Your task to perform on an android device: stop showing notifications on the lock screen Image 0: 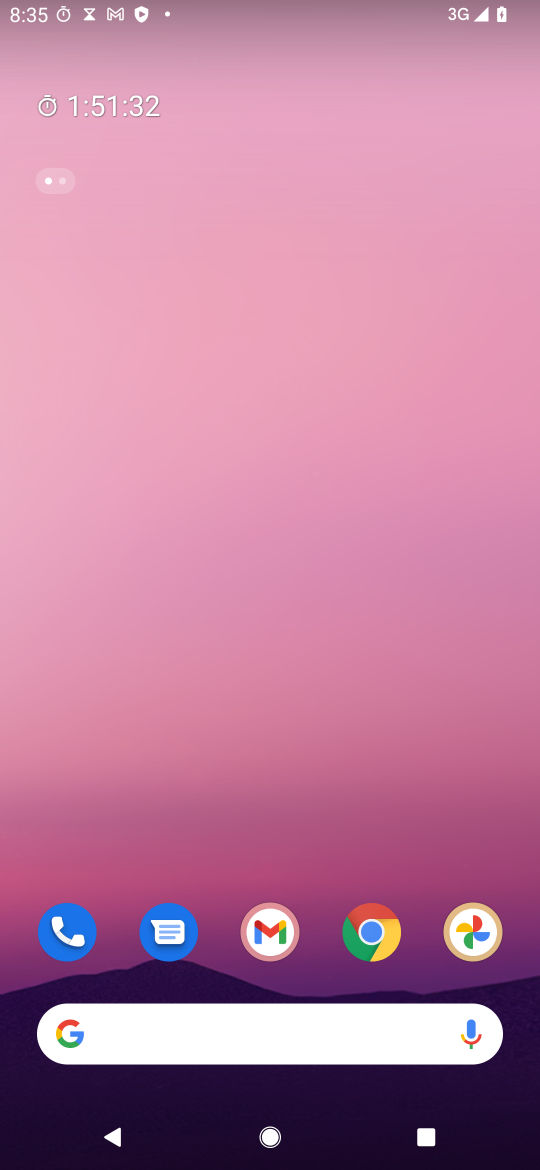
Step 0: press home button
Your task to perform on an android device: stop showing notifications on the lock screen Image 1: 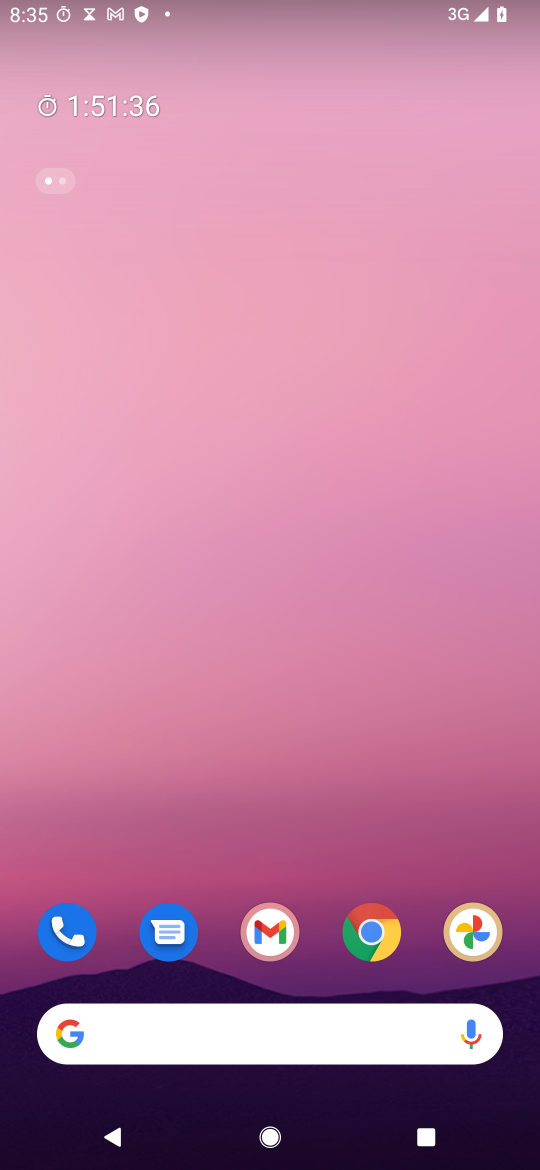
Step 1: drag from (406, 836) to (459, 136)
Your task to perform on an android device: stop showing notifications on the lock screen Image 2: 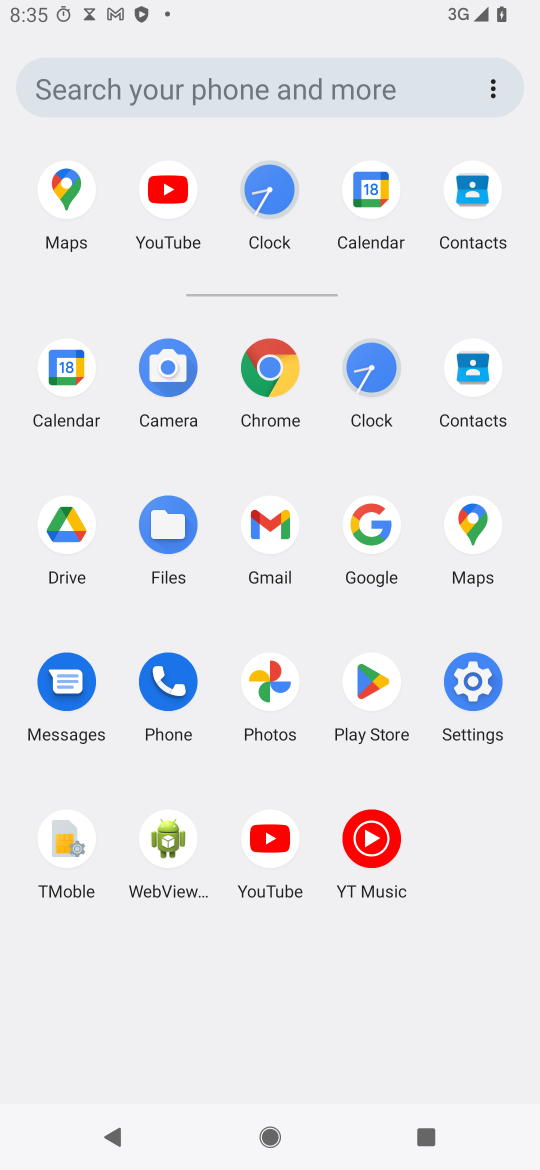
Step 2: click (491, 668)
Your task to perform on an android device: stop showing notifications on the lock screen Image 3: 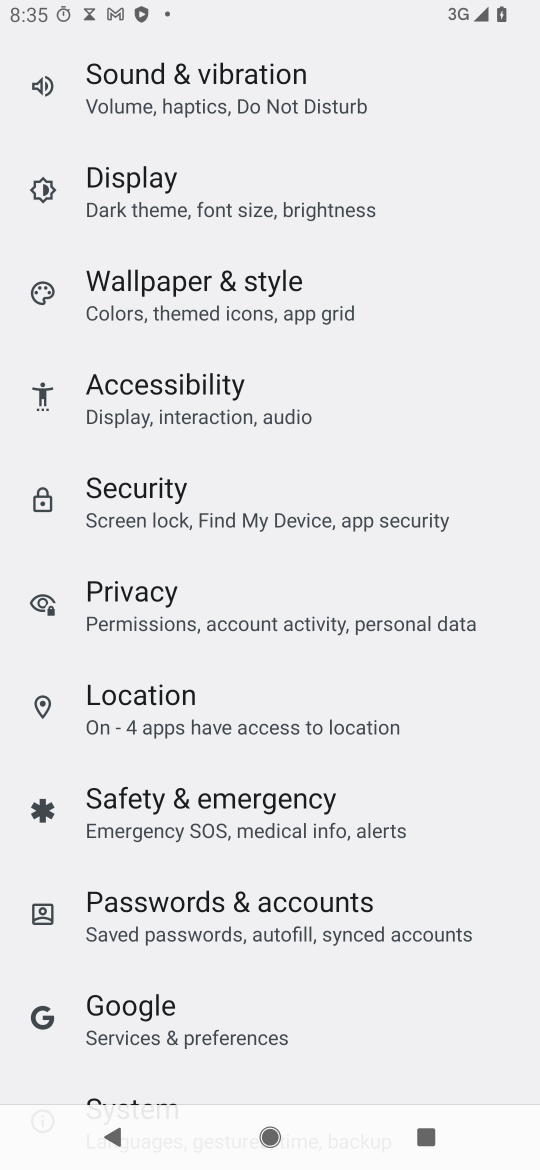
Step 3: drag from (288, 273) to (220, 862)
Your task to perform on an android device: stop showing notifications on the lock screen Image 4: 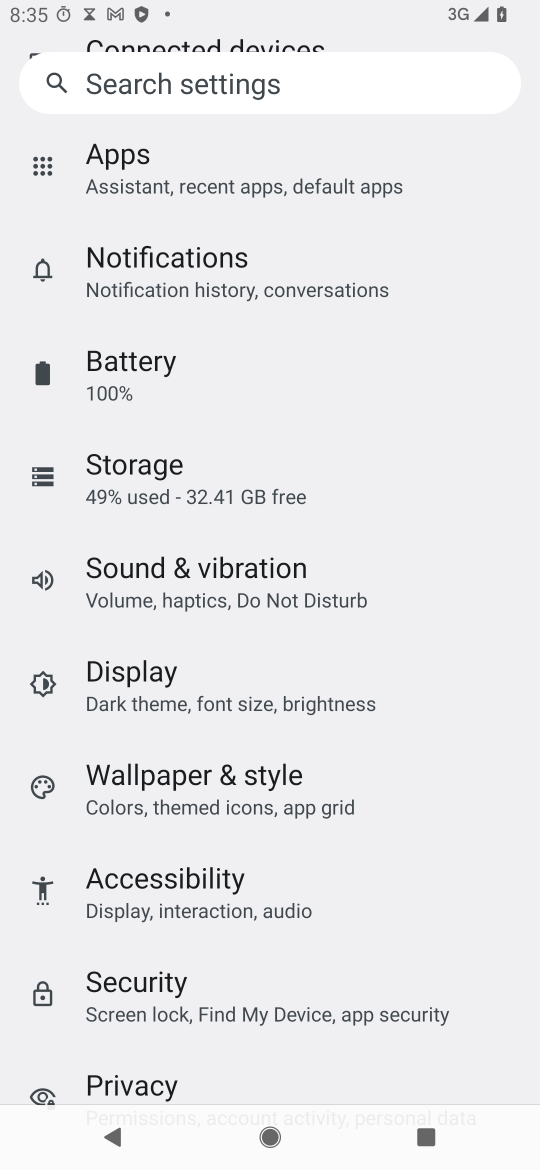
Step 4: drag from (265, 266) to (214, 886)
Your task to perform on an android device: stop showing notifications on the lock screen Image 5: 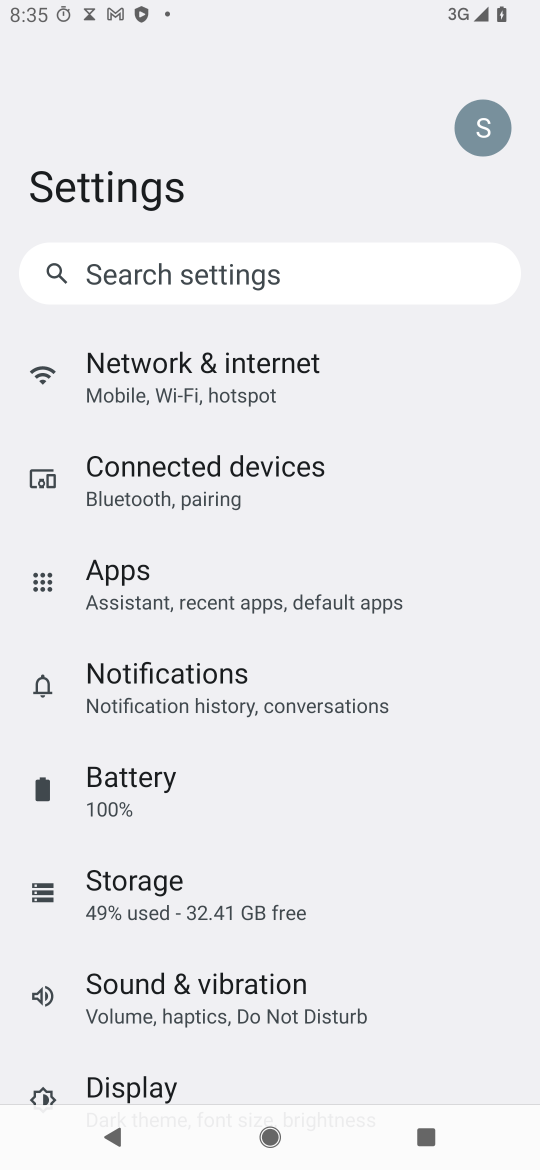
Step 5: click (214, 667)
Your task to perform on an android device: stop showing notifications on the lock screen Image 6: 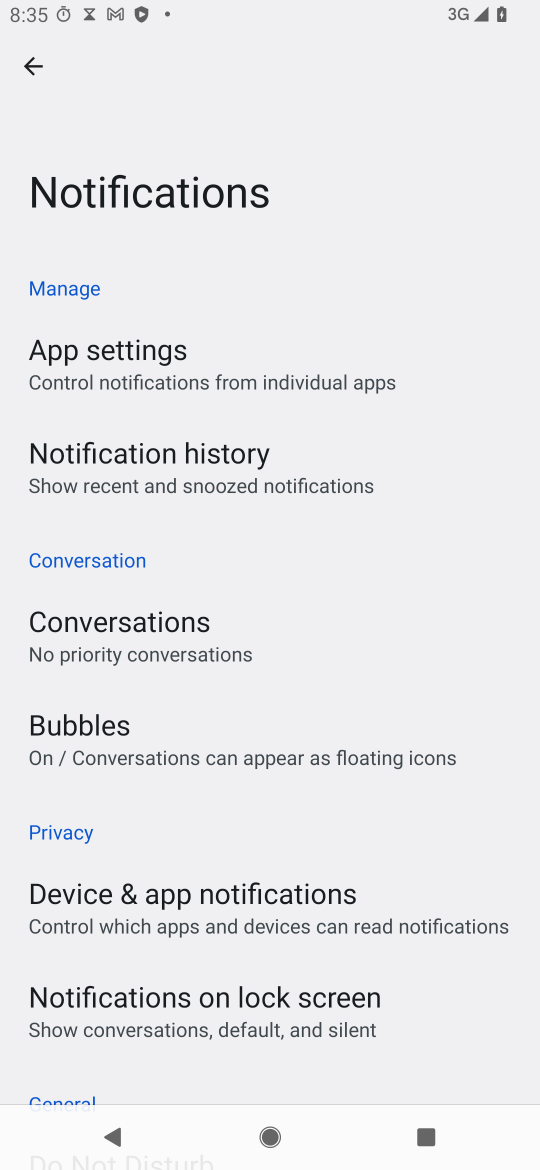
Step 6: click (252, 1000)
Your task to perform on an android device: stop showing notifications on the lock screen Image 7: 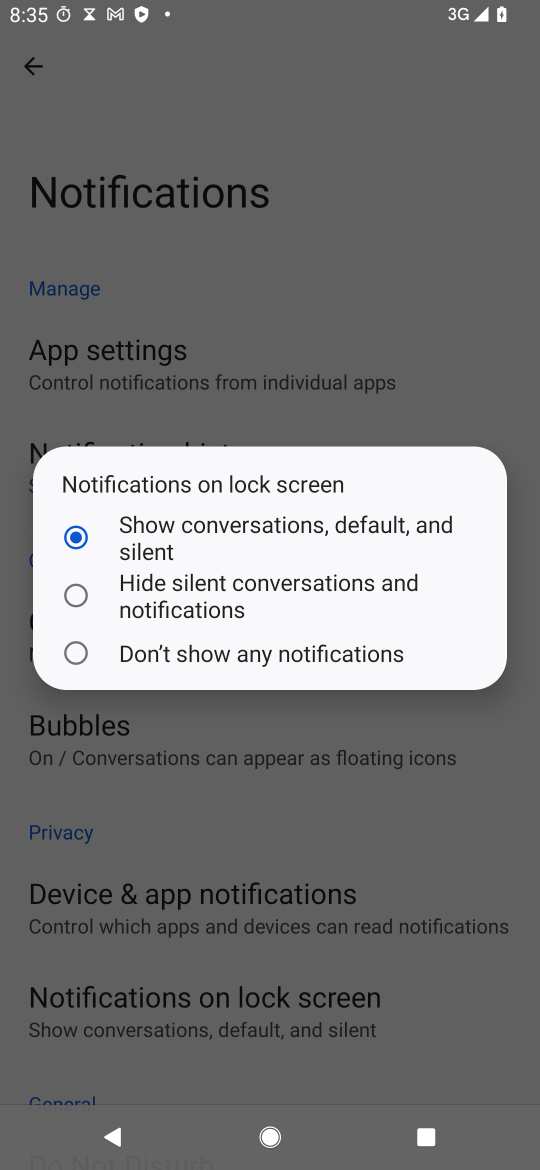
Step 7: click (248, 659)
Your task to perform on an android device: stop showing notifications on the lock screen Image 8: 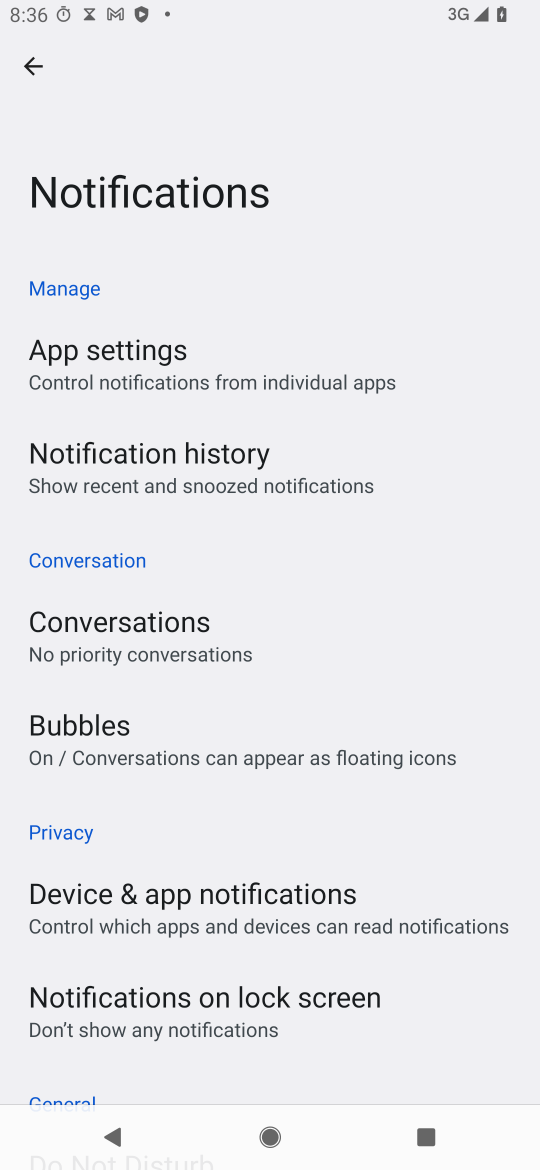
Step 8: task complete